Your task to perform on an android device: Open Chrome and go to settings Image 0: 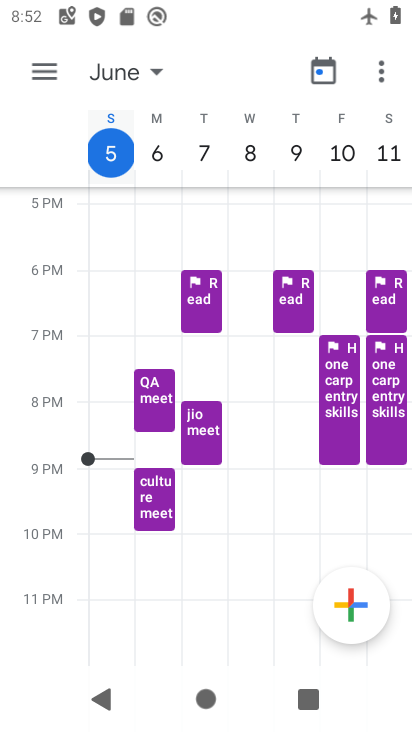
Step 0: press home button
Your task to perform on an android device: Open Chrome and go to settings Image 1: 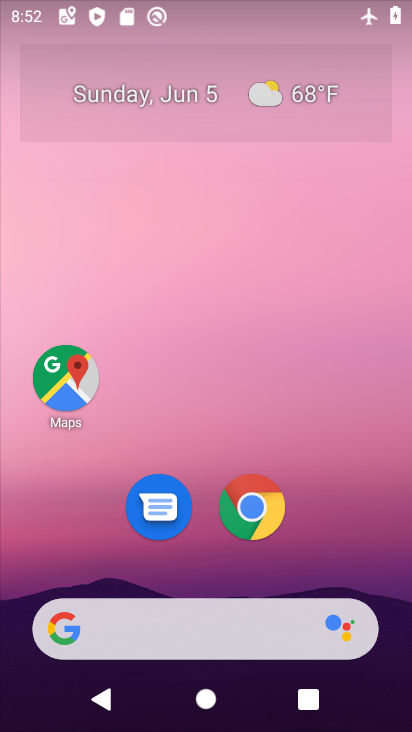
Step 1: click (261, 515)
Your task to perform on an android device: Open Chrome and go to settings Image 2: 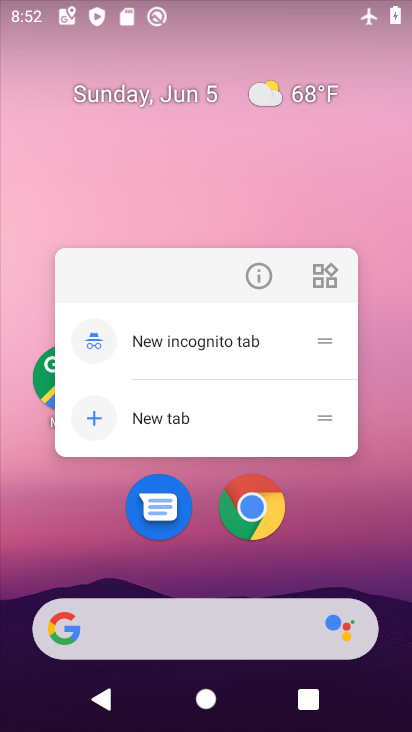
Step 2: click (263, 518)
Your task to perform on an android device: Open Chrome and go to settings Image 3: 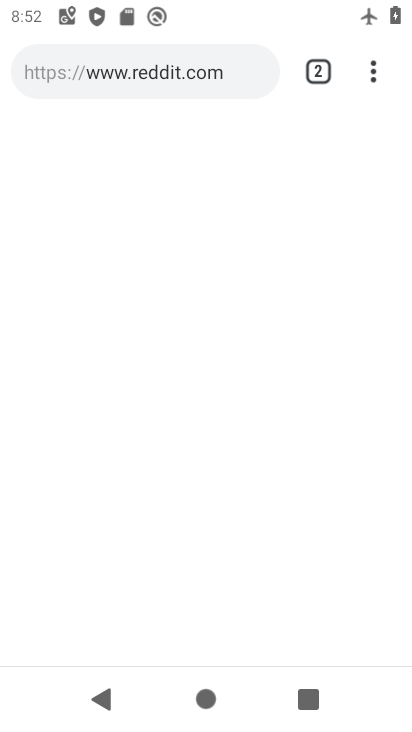
Step 3: click (373, 61)
Your task to perform on an android device: Open Chrome and go to settings Image 4: 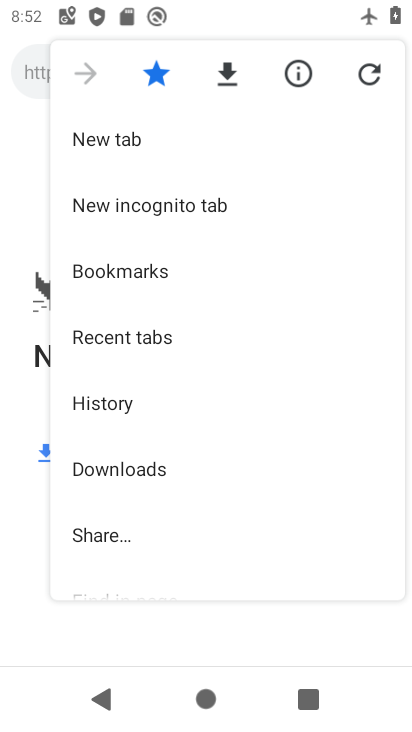
Step 4: drag from (159, 497) to (205, 72)
Your task to perform on an android device: Open Chrome and go to settings Image 5: 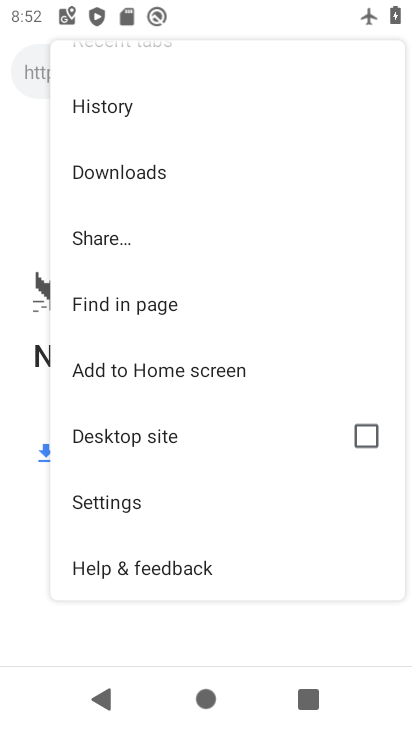
Step 5: click (120, 508)
Your task to perform on an android device: Open Chrome and go to settings Image 6: 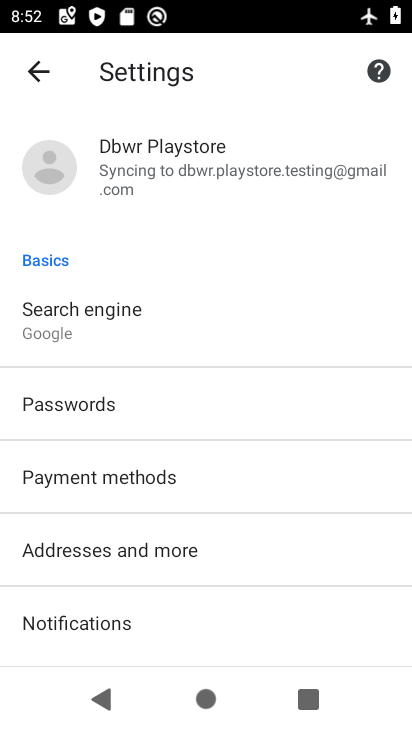
Step 6: task complete